Your task to perform on an android device: change the clock display to analog Image 0: 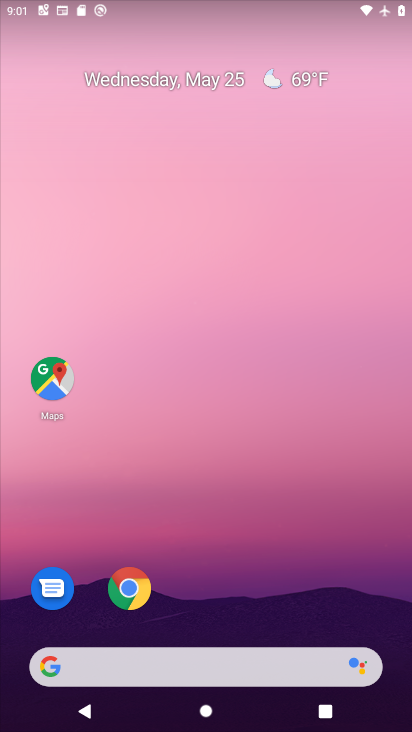
Step 0: drag from (342, 614) to (336, 166)
Your task to perform on an android device: change the clock display to analog Image 1: 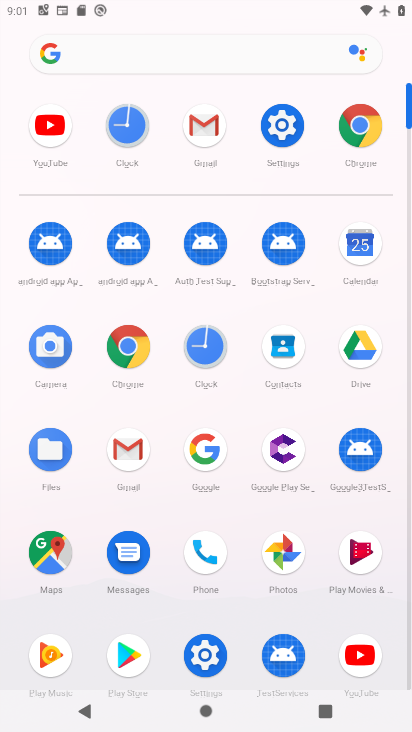
Step 1: click (220, 349)
Your task to perform on an android device: change the clock display to analog Image 2: 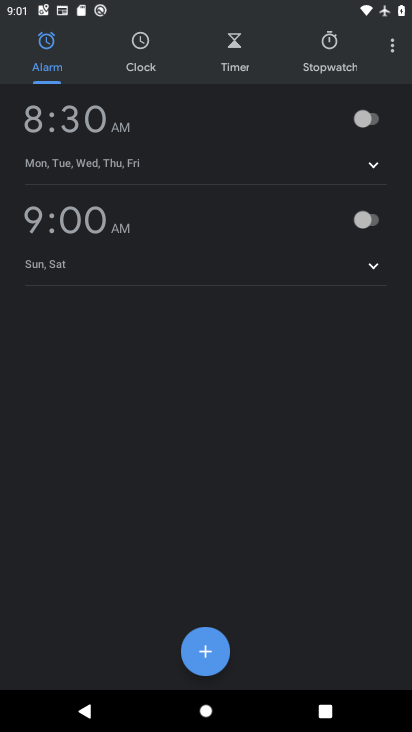
Step 2: click (394, 51)
Your task to perform on an android device: change the clock display to analog Image 3: 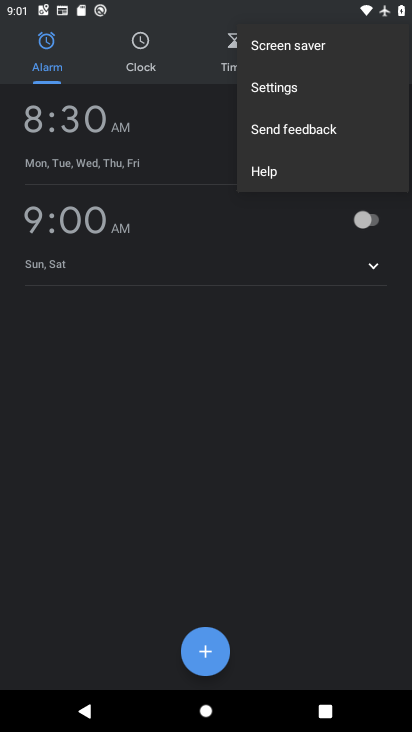
Step 3: click (317, 92)
Your task to perform on an android device: change the clock display to analog Image 4: 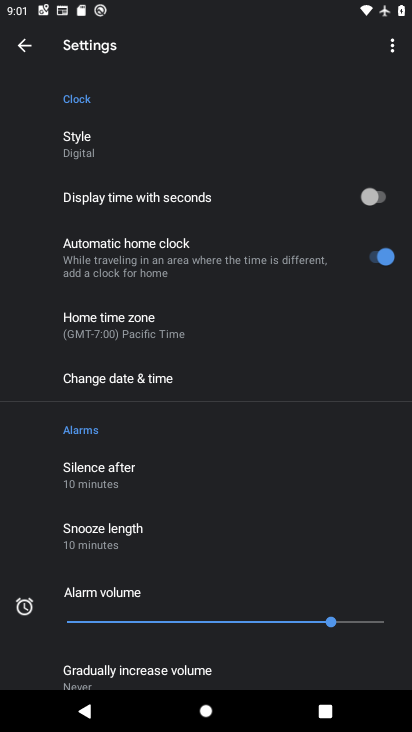
Step 4: drag from (328, 454) to (348, 377)
Your task to perform on an android device: change the clock display to analog Image 5: 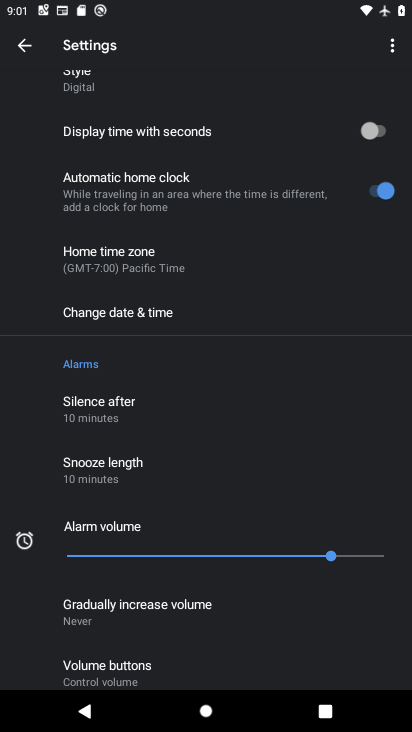
Step 5: drag from (362, 526) to (364, 401)
Your task to perform on an android device: change the clock display to analog Image 6: 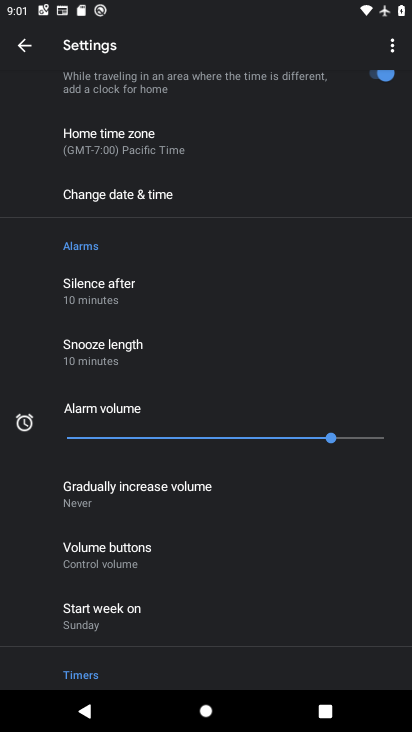
Step 6: drag from (360, 542) to (366, 448)
Your task to perform on an android device: change the clock display to analog Image 7: 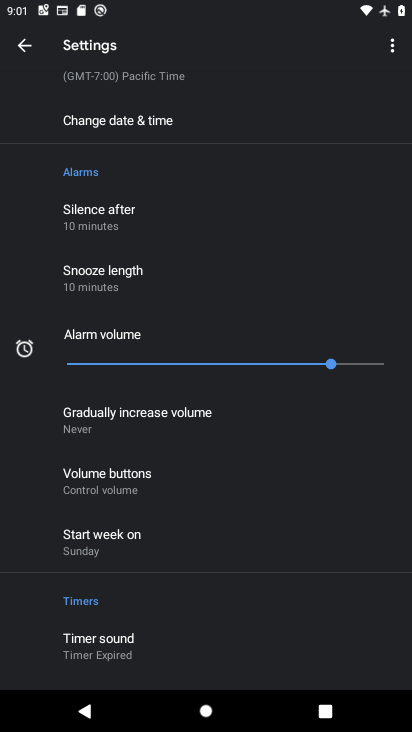
Step 7: drag from (367, 574) to (364, 474)
Your task to perform on an android device: change the clock display to analog Image 8: 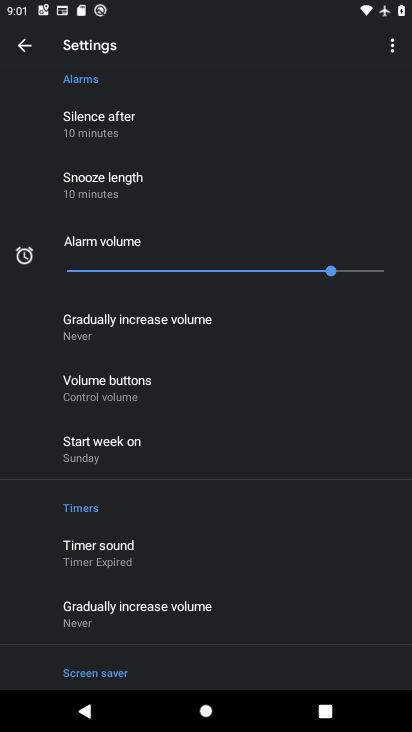
Step 8: drag from (353, 536) to (355, 413)
Your task to perform on an android device: change the clock display to analog Image 9: 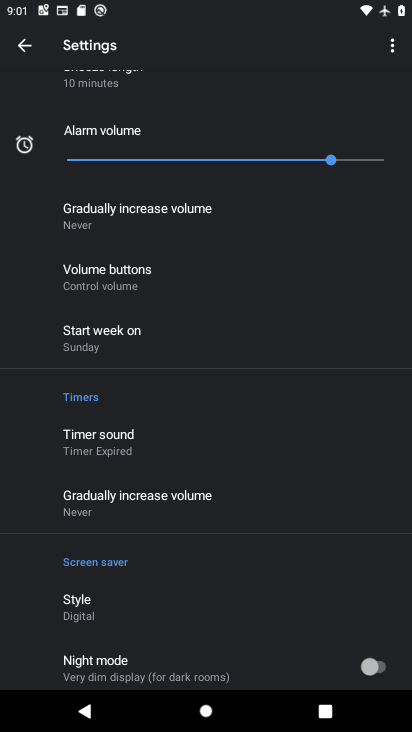
Step 9: drag from (344, 527) to (343, 453)
Your task to perform on an android device: change the clock display to analog Image 10: 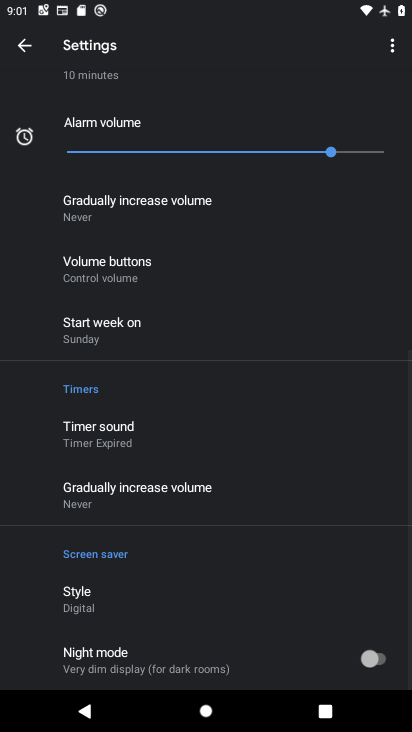
Step 10: drag from (347, 327) to (340, 457)
Your task to perform on an android device: change the clock display to analog Image 11: 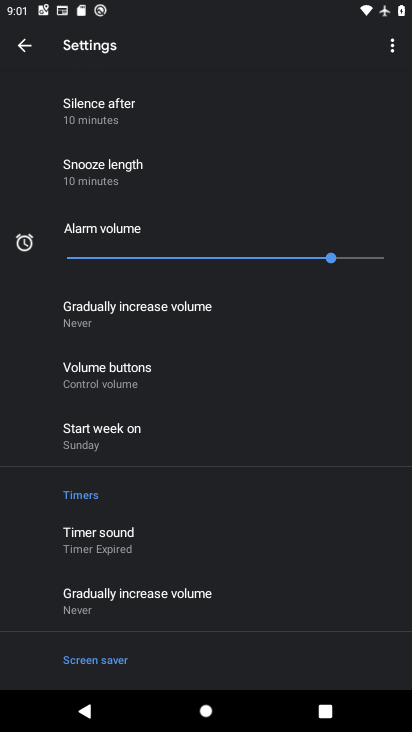
Step 11: drag from (355, 330) to (359, 438)
Your task to perform on an android device: change the clock display to analog Image 12: 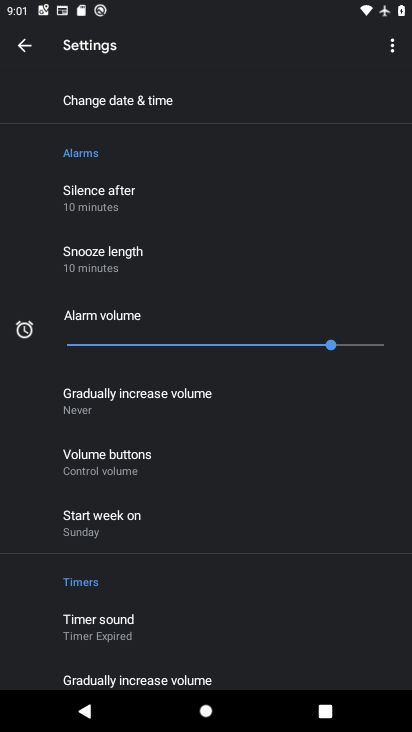
Step 12: drag from (372, 303) to (380, 394)
Your task to perform on an android device: change the clock display to analog Image 13: 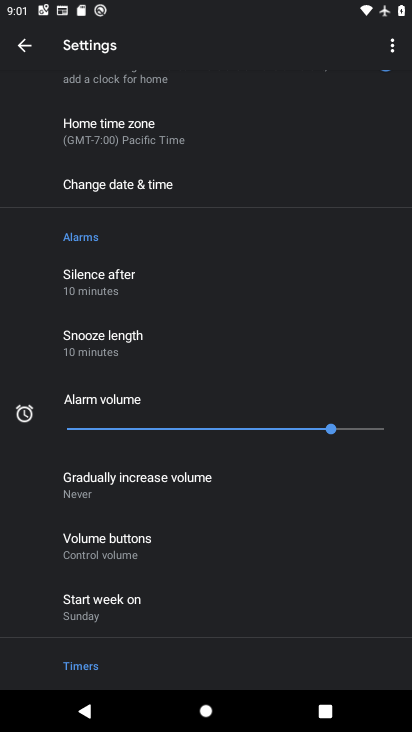
Step 13: drag from (380, 288) to (368, 405)
Your task to perform on an android device: change the clock display to analog Image 14: 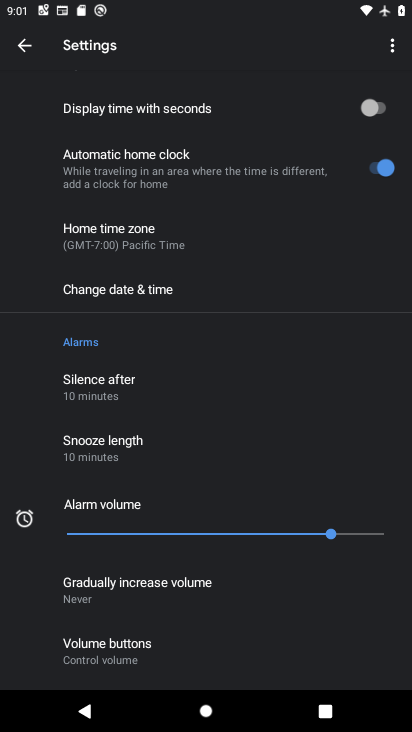
Step 14: drag from (352, 318) to (351, 451)
Your task to perform on an android device: change the clock display to analog Image 15: 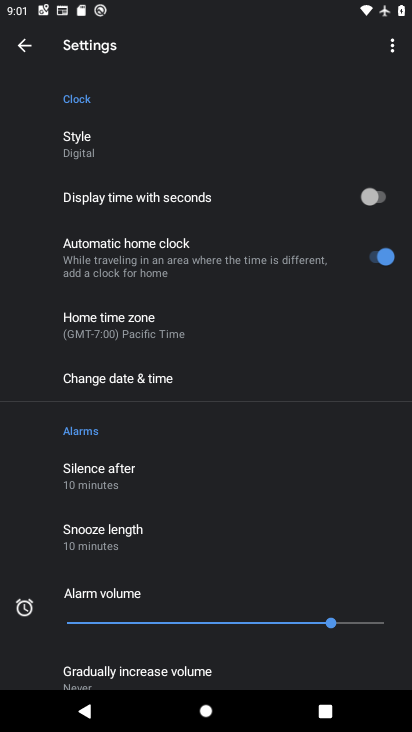
Step 15: drag from (281, 247) to (272, 385)
Your task to perform on an android device: change the clock display to analog Image 16: 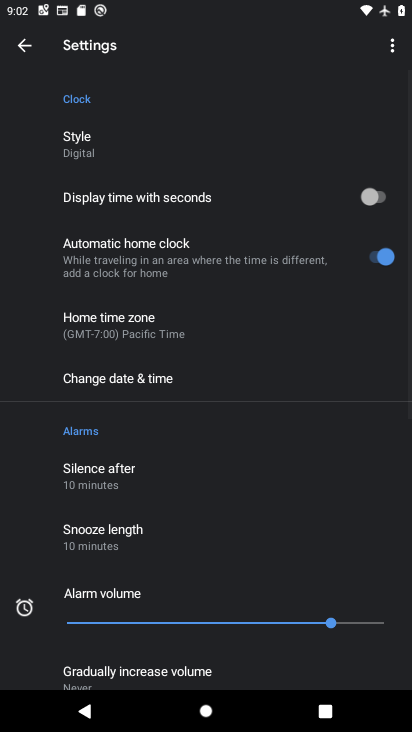
Step 16: click (80, 157)
Your task to perform on an android device: change the clock display to analog Image 17: 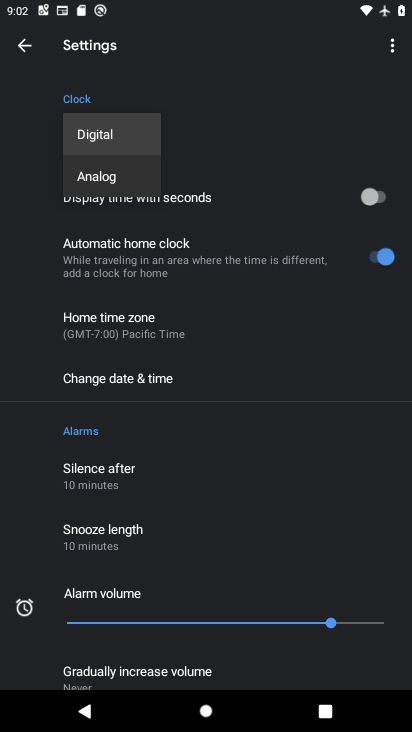
Step 17: click (115, 181)
Your task to perform on an android device: change the clock display to analog Image 18: 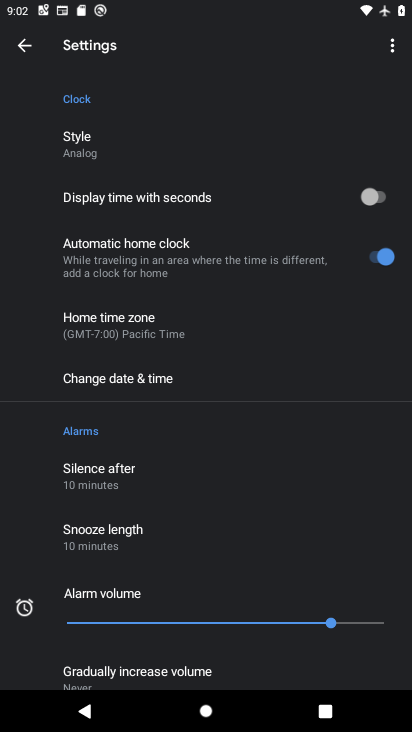
Step 18: task complete